Your task to perform on an android device: allow cookies in the chrome app Image 0: 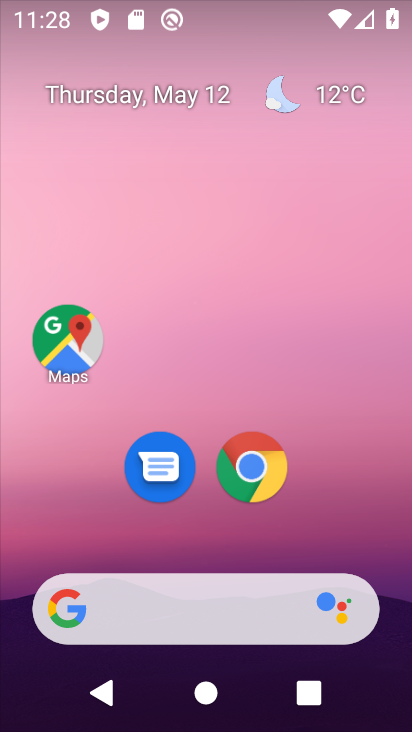
Step 0: drag from (362, 546) to (236, 52)
Your task to perform on an android device: allow cookies in the chrome app Image 1: 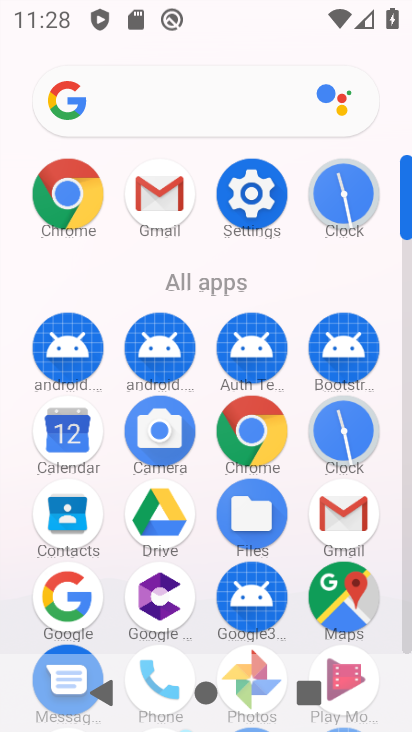
Step 1: drag from (8, 561) to (23, 316)
Your task to perform on an android device: allow cookies in the chrome app Image 2: 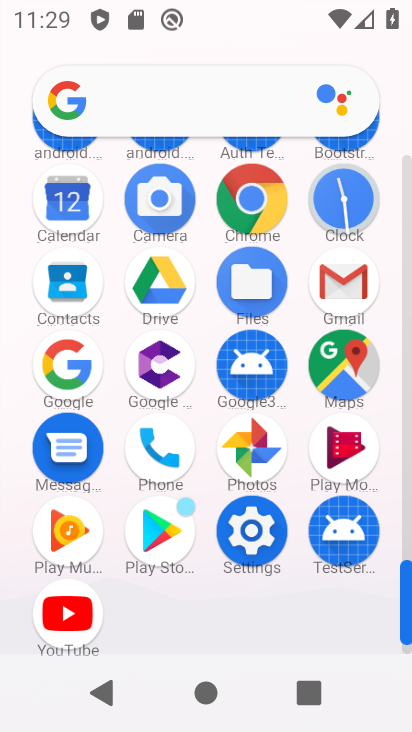
Step 2: click (251, 206)
Your task to perform on an android device: allow cookies in the chrome app Image 3: 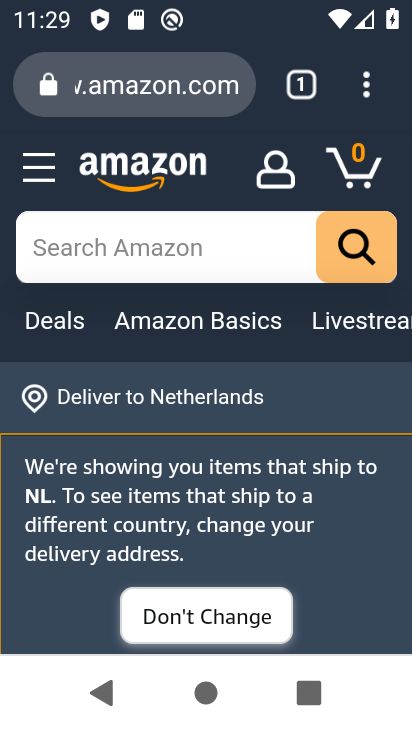
Step 3: drag from (362, 74) to (88, 510)
Your task to perform on an android device: allow cookies in the chrome app Image 4: 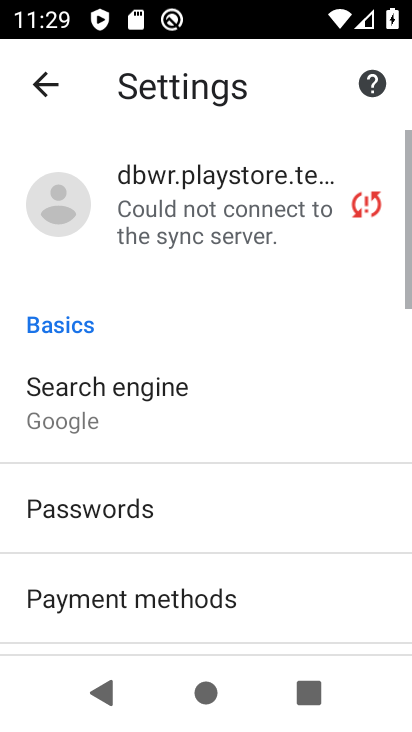
Step 4: drag from (238, 548) to (216, 190)
Your task to perform on an android device: allow cookies in the chrome app Image 5: 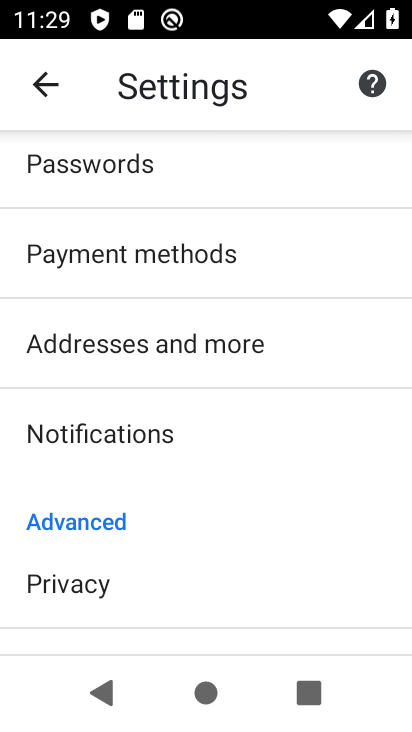
Step 5: drag from (252, 514) to (218, 196)
Your task to perform on an android device: allow cookies in the chrome app Image 6: 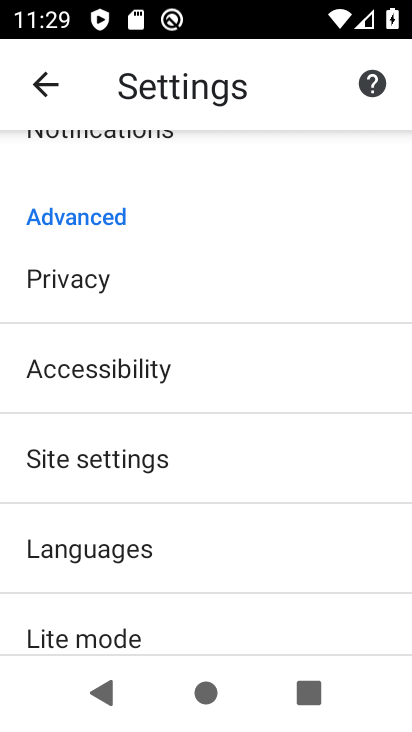
Step 6: click (148, 465)
Your task to perform on an android device: allow cookies in the chrome app Image 7: 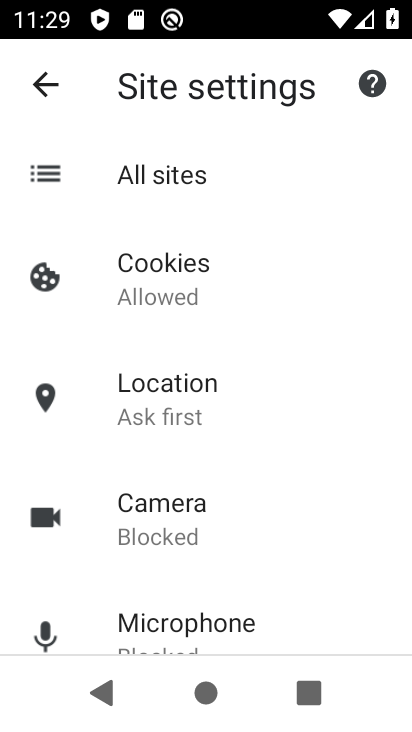
Step 7: click (195, 285)
Your task to perform on an android device: allow cookies in the chrome app Image 8: 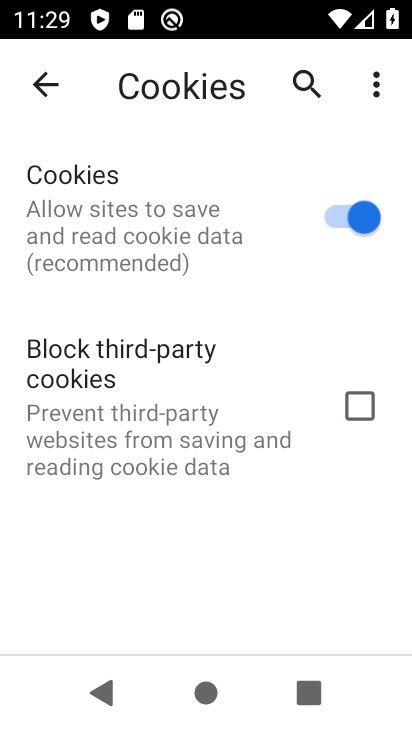
Step 8: task complete